Your task to perform on an android device: toggle airplane mode Image 0: 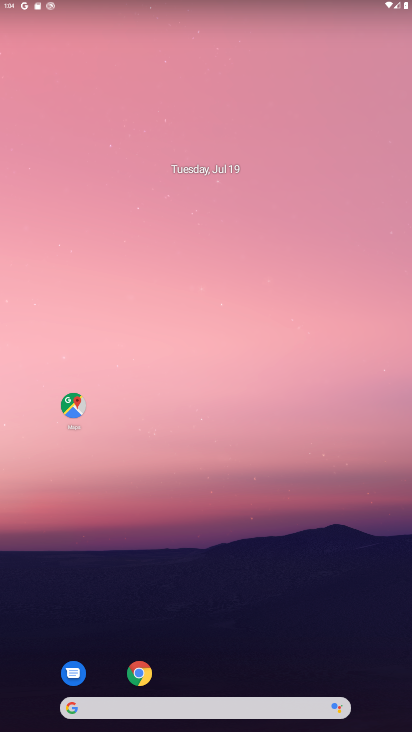
Step 0: drag from (110, 725) to (177, 130)
Your task to perform on an android device: toggle airplane mode Image 1: 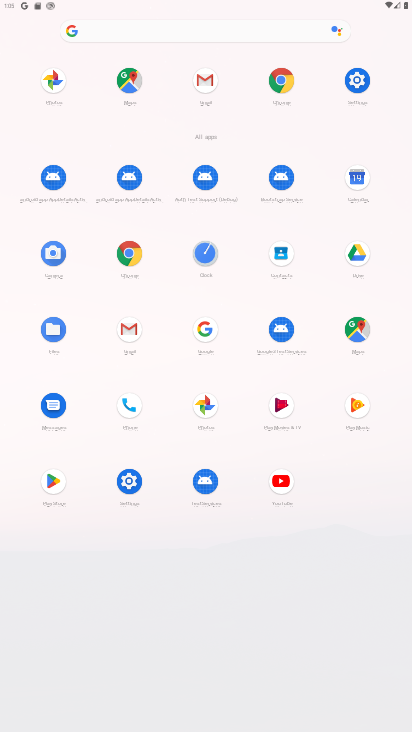
Step 1: click (359, 87)
Your task to perform on an android device: toggle airplane mode Image 2: 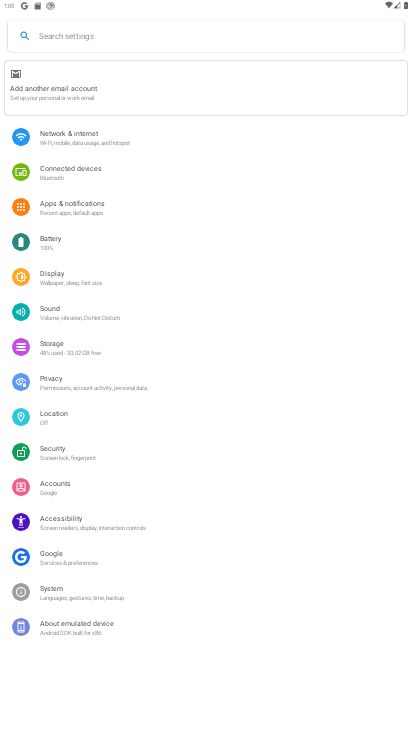
Step 2: click (148, 143)
Your task to perform on an android device: toggle airplane mode Image 3: 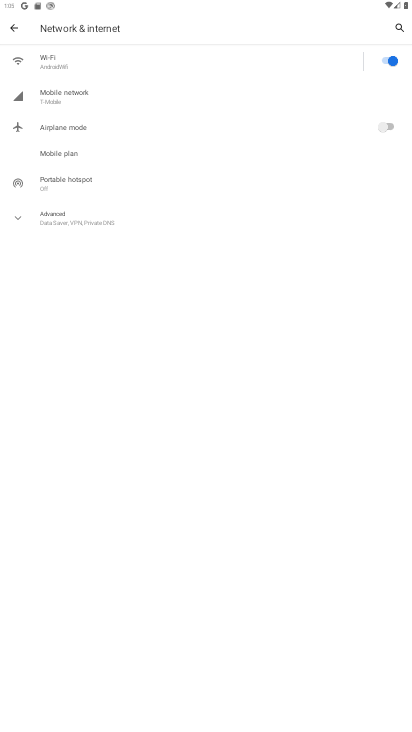
Step 3: click (384, 128)
Your task to perform on an android device: toggle airplane mode Image 4: 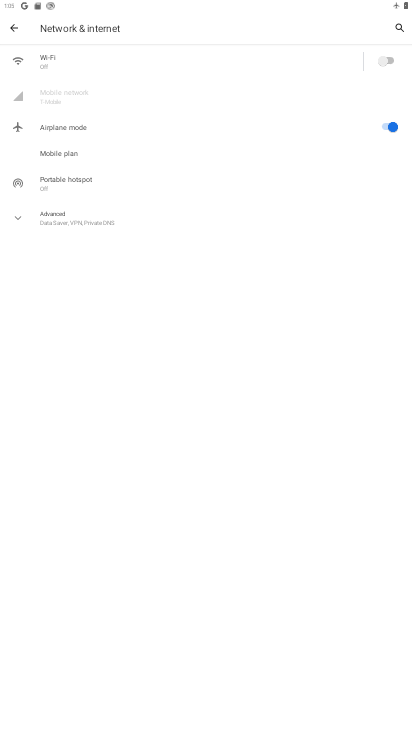
Step 4: task complete